Your task to perform on an android device: Show me productivity apps on the Play Store Image 0: 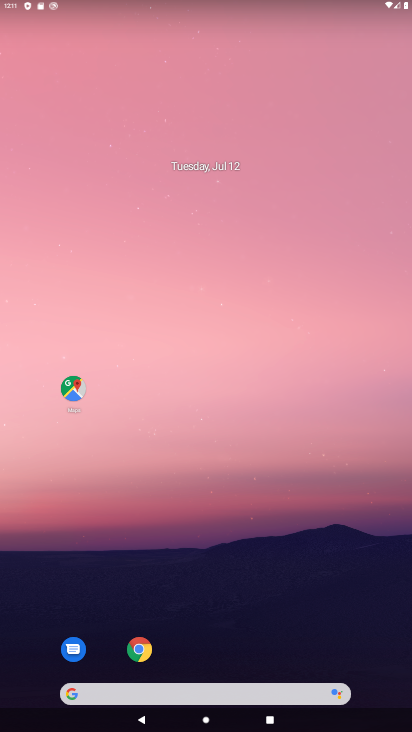
Step 0: drag from (296, 652) to (270, 199)
Your task to perform on an android device: Show me productivity apps on the Play Store Image 1: 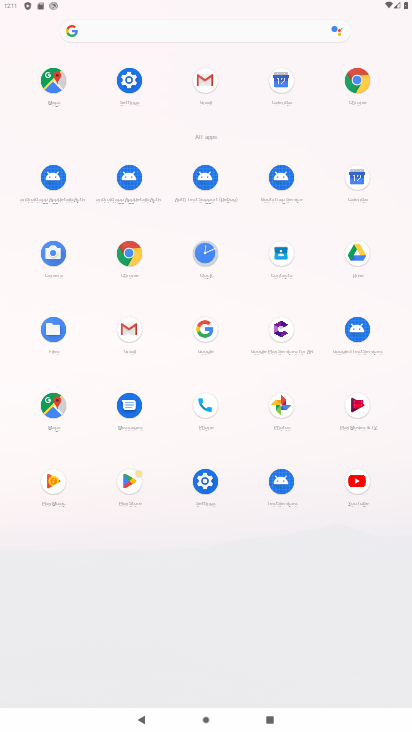
Step 1: click (121, 487)
Your task to perform on an android device: Show me productivity apps on the Play Store Image 2: 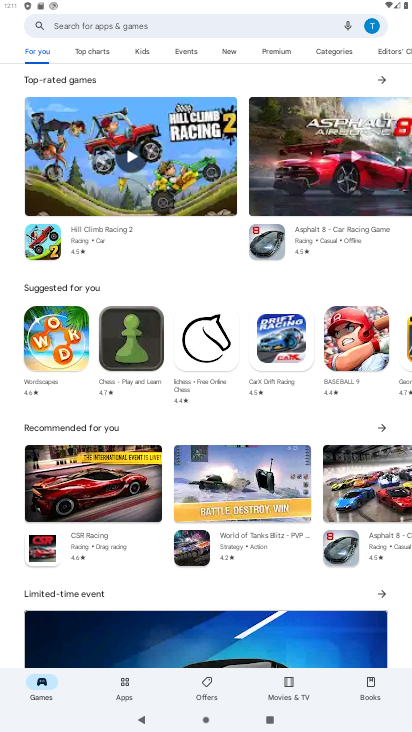
Step 2: click (107, 695)
Your task to perform on an android device: Show me productivity apps on the Play Store Image 3: 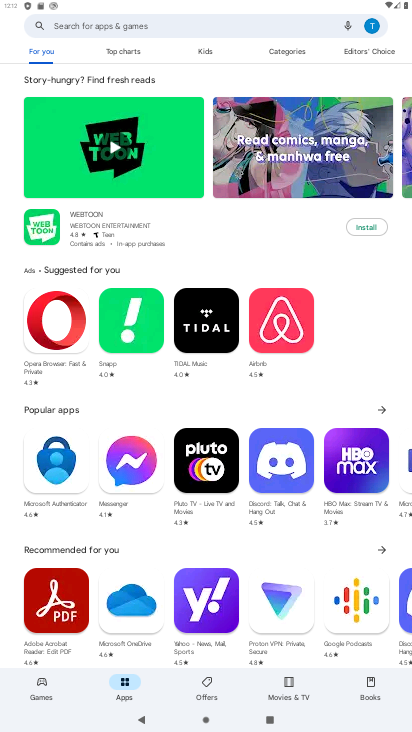
Step 3: task complete